Your task to perform on an android device: toggle sleep mode Image 0: 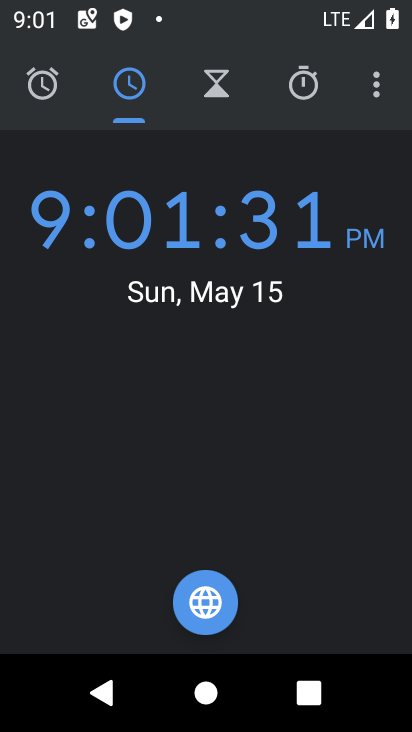
Step 0: click (325, 106)
Your task to perform on an android device: toggle sleep mode Image 1: 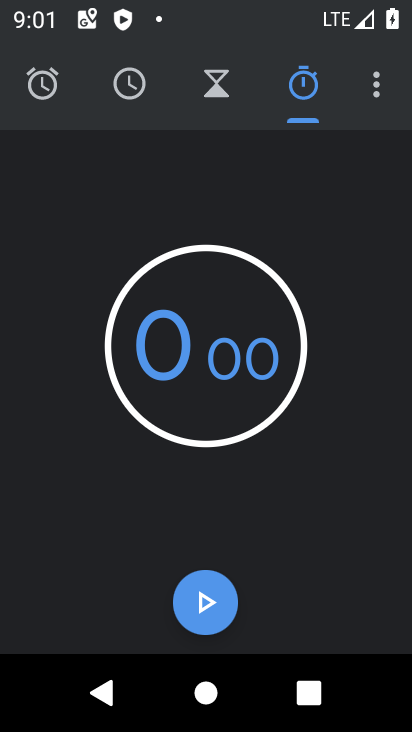
Step 1: press home button
Your task to perform on an android device: toggle sleep mode Image 2: 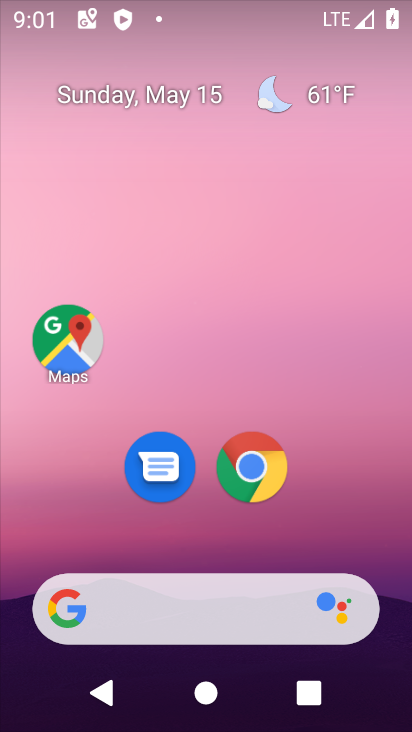
Step 2: drag from (189, 547) to (246, 2)
Your task to perform on an android device: toggle sleep mode Image 3: 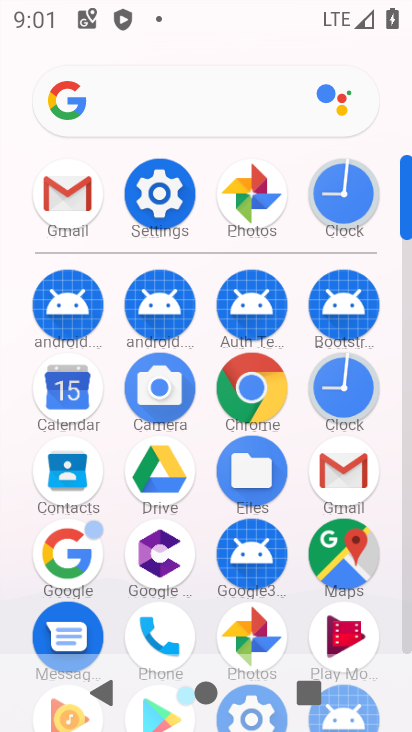
Step 3: click (157, 203)
Your task to perform on an android device: toggle sleep mode Image 4: 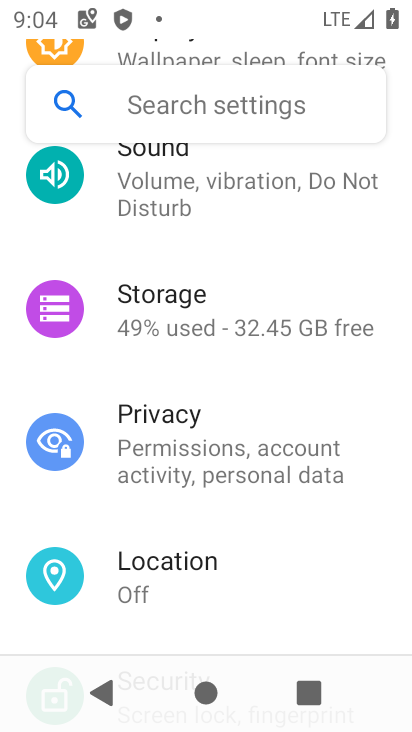
Step 4: task complete